Your task to perform on an android device: turn smart compose on in the gmail app Image 0: 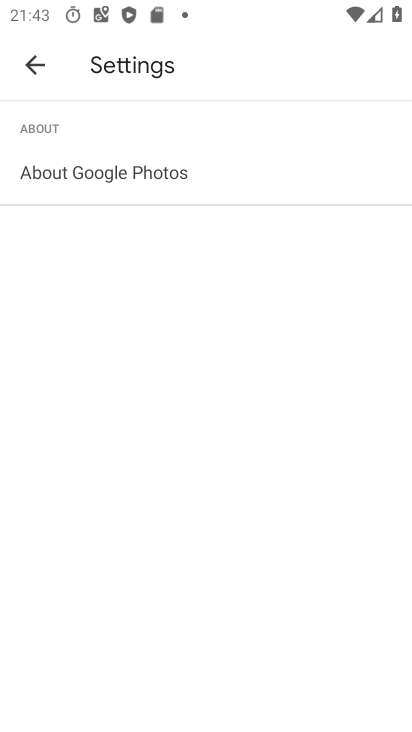
Step 0: press home button
Your task to perform on an android device: turn smart compose on in the gmail app Image 1: 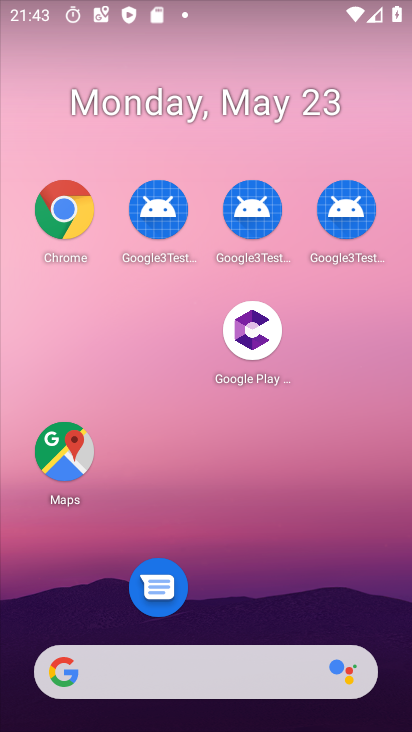
Step 1: drag from (315, 608) to (301, 33)
Your task to perform on an android device: turn smart compose on in the gmail app Image 2: 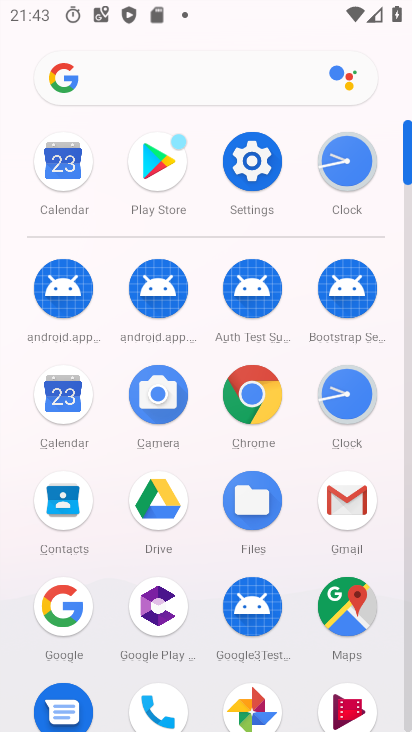
Step 2: click (356, 500)
Your task to perform on an android device: turn smart compose on in the gmail app Image 3: 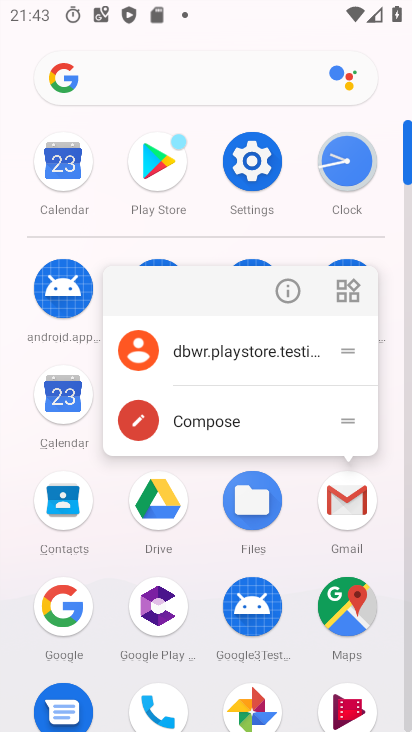
Step 3: click (356, 499)
Your task to perform on an android device: turn smart compose on in the gmail app Image 4: 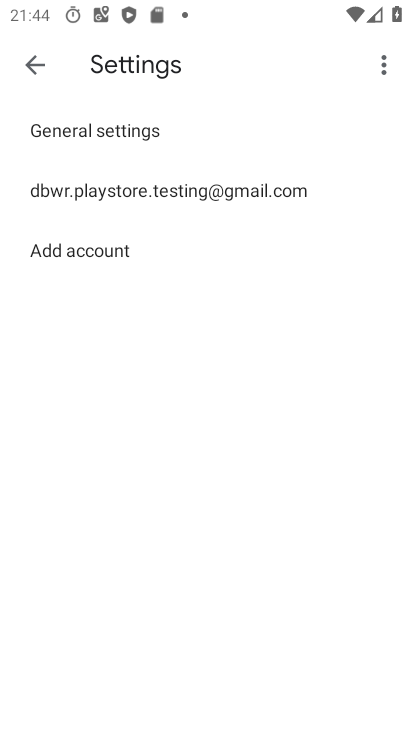
Step 4: click (26, 62)
Your task to perform on an android device: turn smart compose on in the gmail app Image 5: 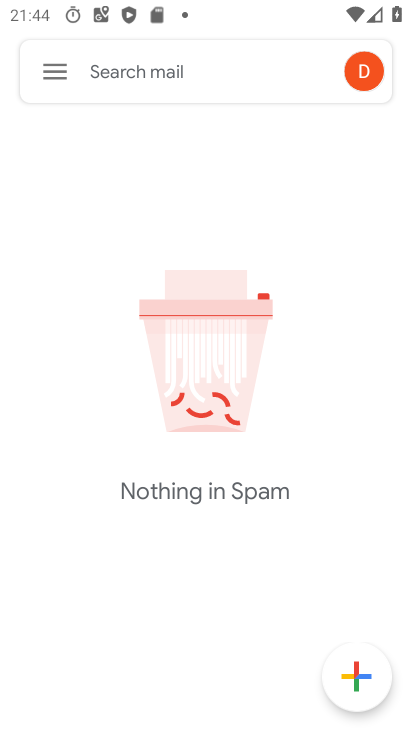
Step 5: click (59, 65)
Your task to perform on an android device: turn smart compose on in the gmail app Image 6: 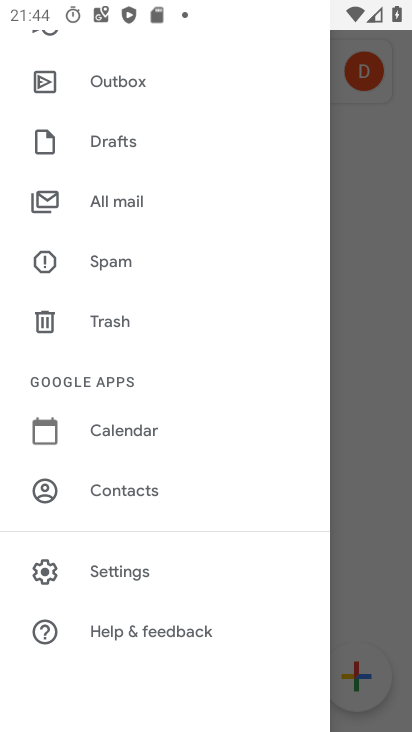
Step 6: click (130, 565)
Your task to perform on an android device: turn smart compose on in the gmail app Image 7: 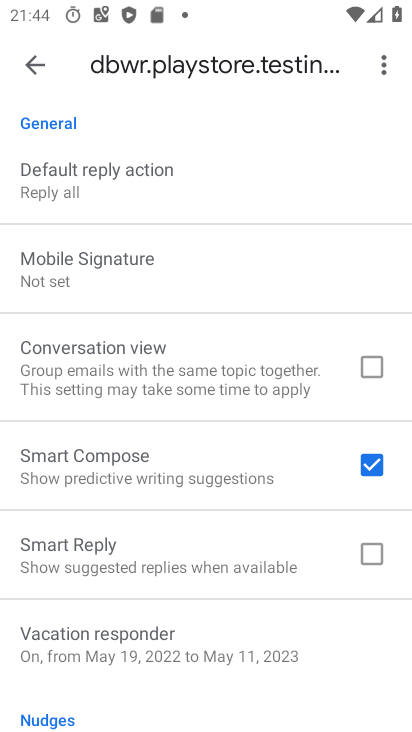
Step 7: task complete